Your task to perform on an android device: snooze an email in the gmail app Image 0: 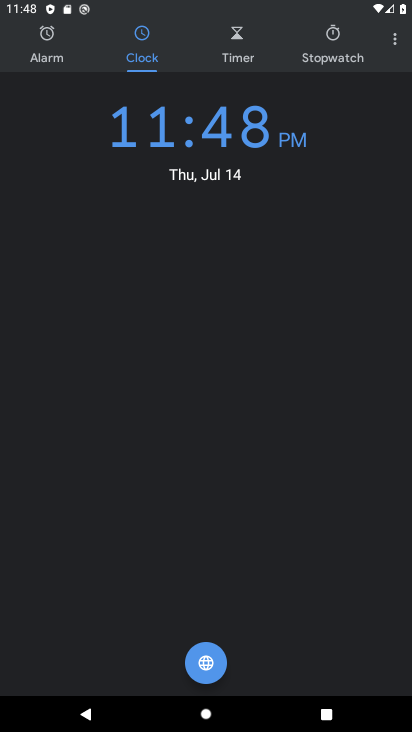
Step 0: press home button
Your task to perform on an android device: snooze an email in the gmail app Image 1: 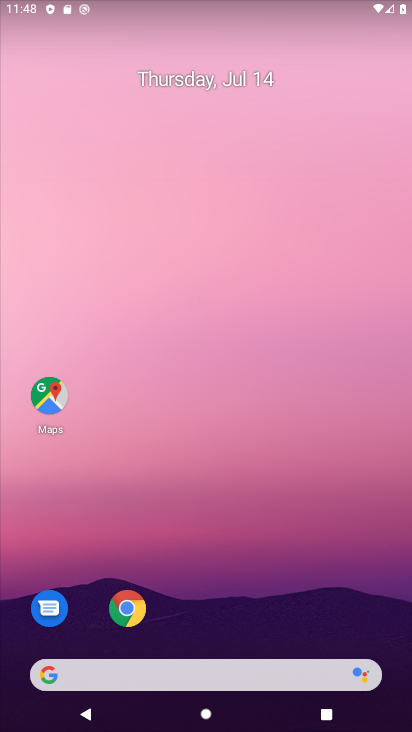
Step 1: drag from (184, 491) to (183, 207)
Your task to perform on an android device: snooze an email in the gmail app Image 2: 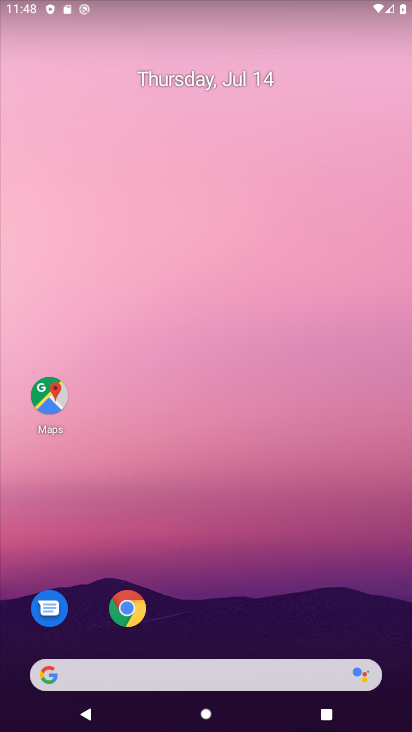
Step 2: drag from (182, 538) to (212, 6)
Your task to perform on an android device: snooze an email in the gmail app Image 3: 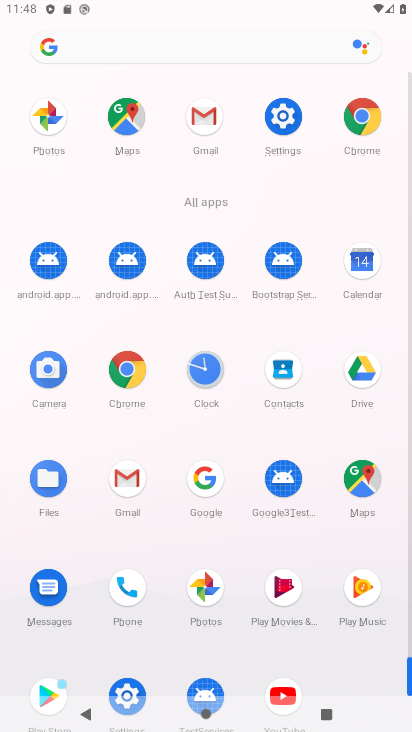
Step 3: click (200, 120)
Your task to perform on an android device: snooze an email in the gmail app Image 4: 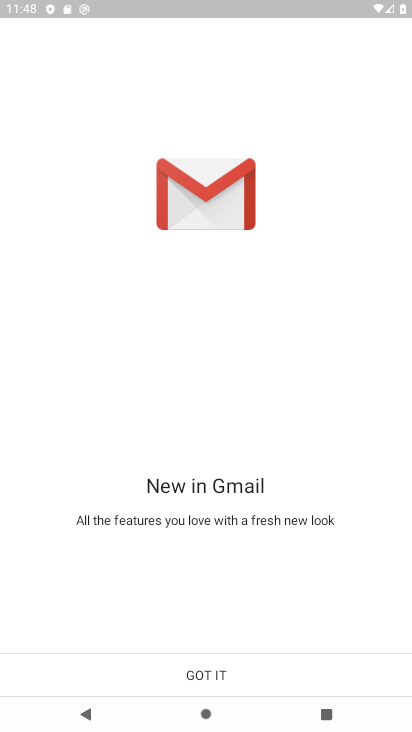
Step 4: click (210, 668)
Your task to perform on an android device: snooze an email in the gmail app Image 5: 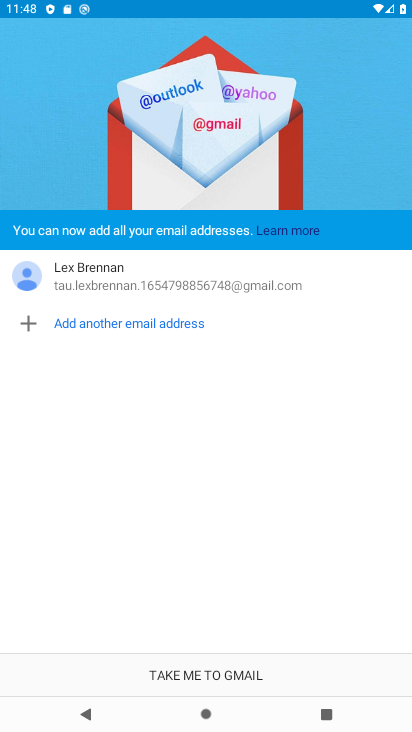
Step 5: click (210, 668)
Your task to perform on an android device: snooze an email in the gmail app Image 6: 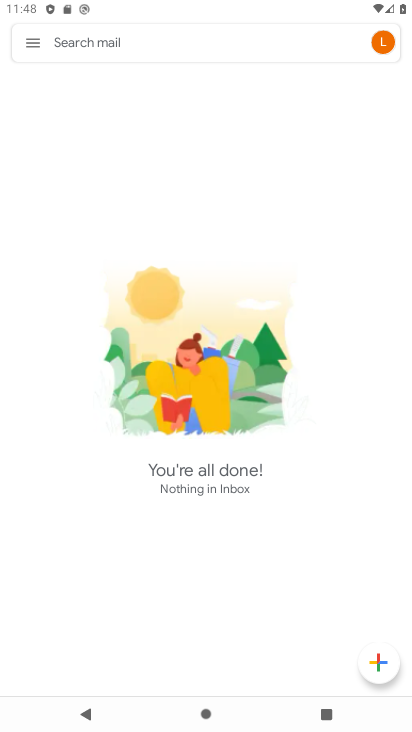
Step 6: click (31, 41)
Your task to perform on an android device: snooze an email in the gmail app Image 7: 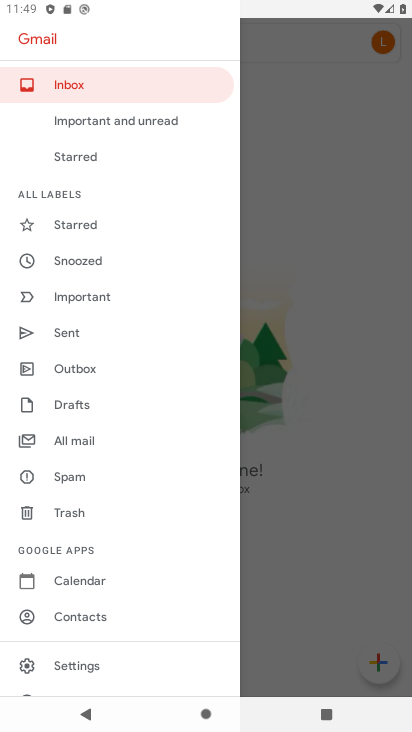
Step 7: drag from (84, 628) to (122, 444)
Your task to perform on an android device: snooze an email in the gmail app Image 8: 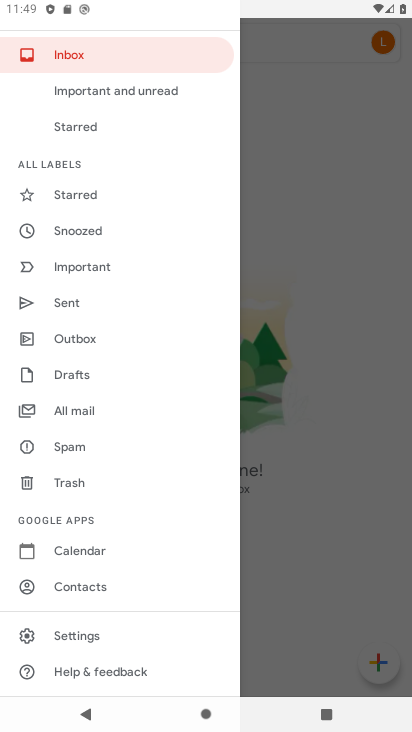
Step 8: click (91, 410)
Your task to perform on an android device: snooze an email in the gmail app Image 9: 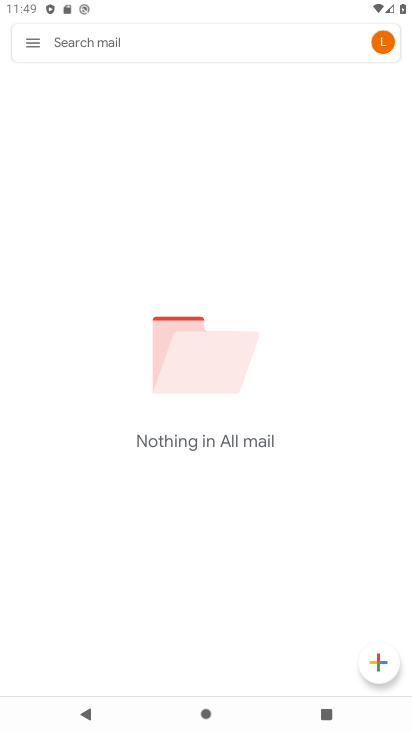
Step 9: task complete